Your task to perform on an android device: turn off airplane mode Image 0: 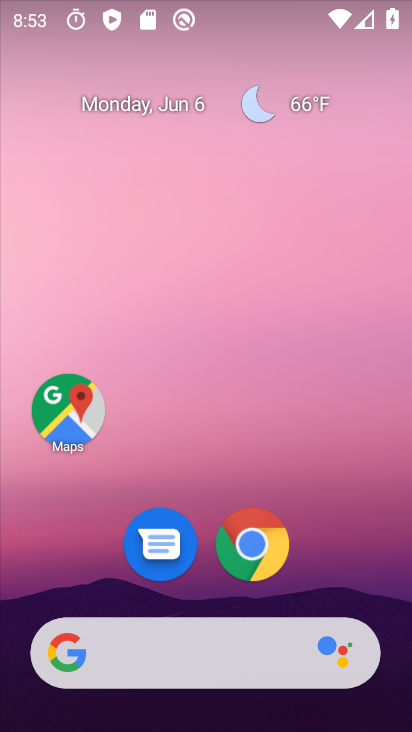
Step 0: drag from (353, 573) to (260, 70)
Your task to perform on an android device: turn off airplane mode Image 1: 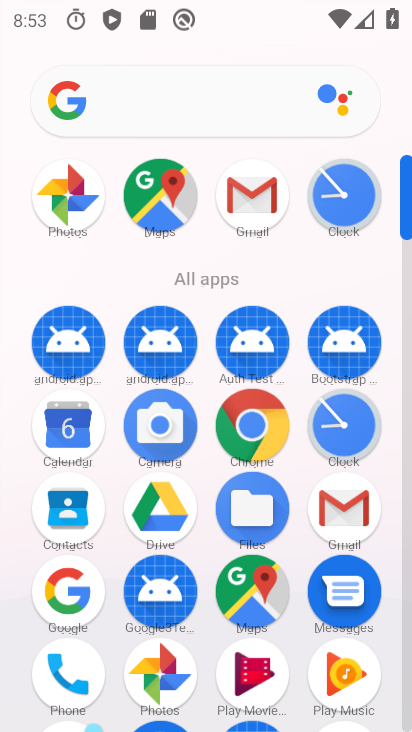
Step 1: click (406, 703)
Your task to perform on an android device: turn off airplane mode Image 2: 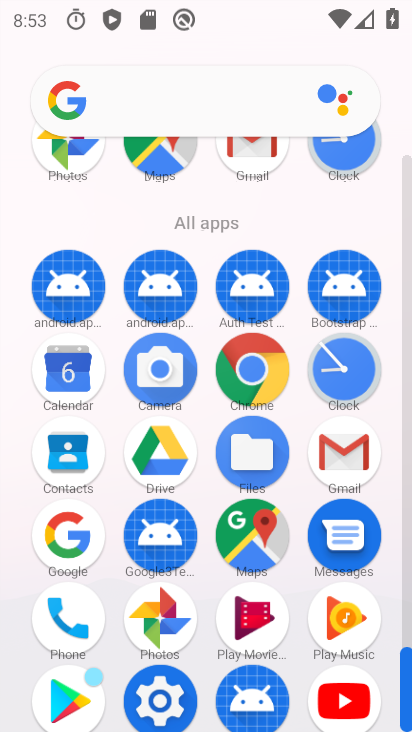
Step 2: click (169, 683)
Your task to perform on an android device: turn off airplane mode Image 3: 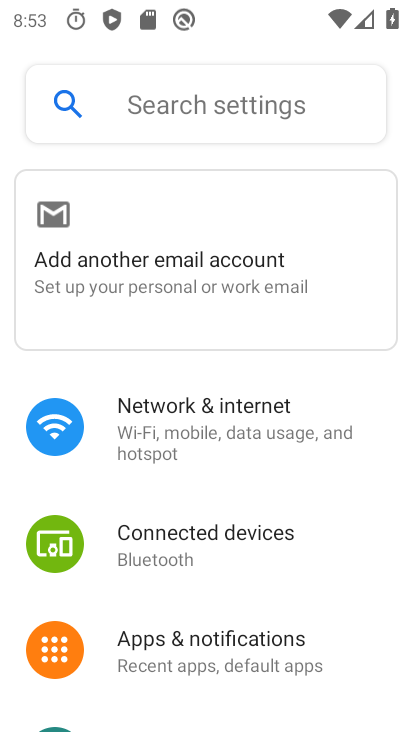
Step 3: click (285, 409)
Your task to perform on an android device: turn off airplane mode Image 4: 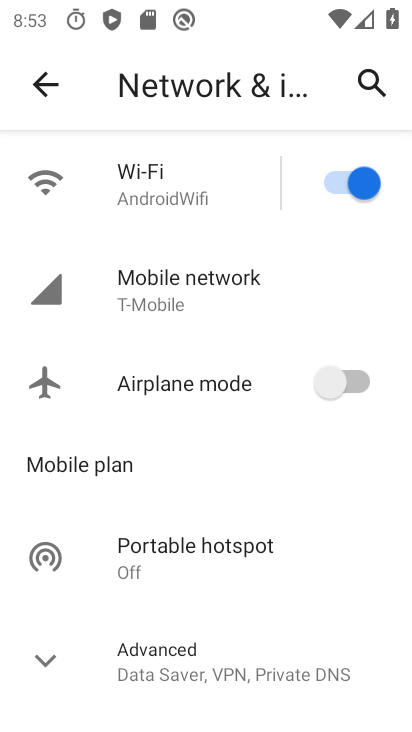
Step 4: task complete